Your task to perform on an android device: Open the Play Movies app and select the watchlist tab. Image 0: 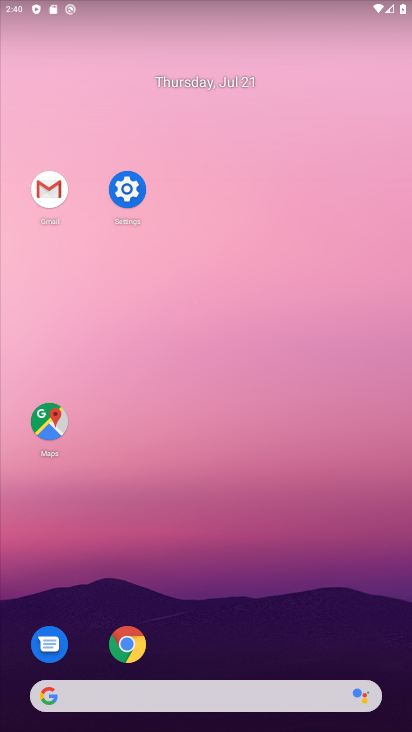
Step 0: drag from (247, 568) to (250, 130)
Your task to perform on an android device: Open the Play Movies app and select the watchlist tab. Image 1: 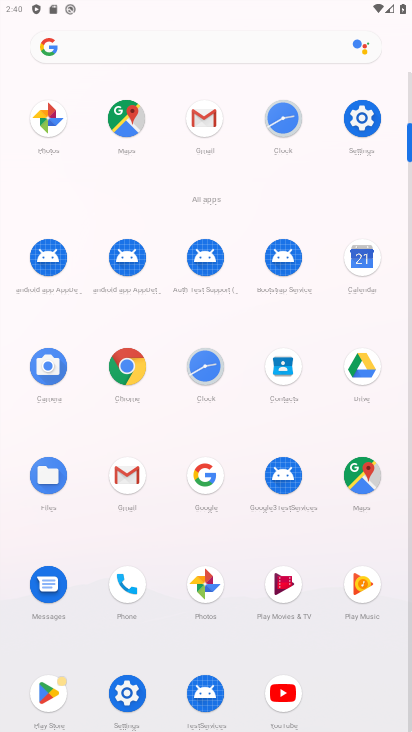
Step 1: click (274, 578)
Your task to perform on an android device: Open the Play Movies app and select the watchlist tab. Image 2: 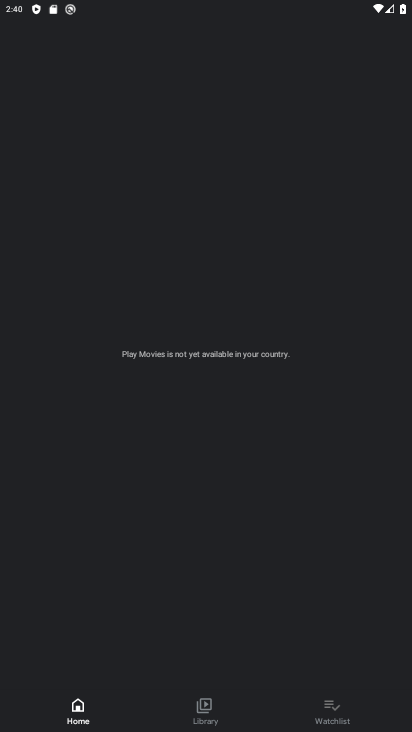
Step 2: click (353, 693)
Your task to perform on an android device: Open the Play Movies app and select the watchlist tab. Image 3: 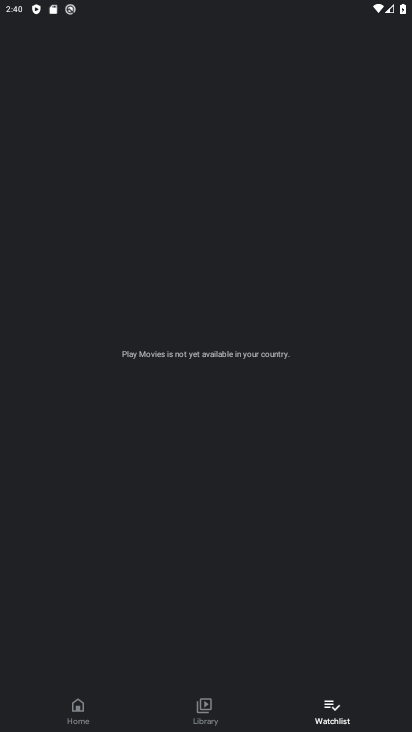
Step 3: task complete